Your task to perform on an android device: Open the map Image 0: 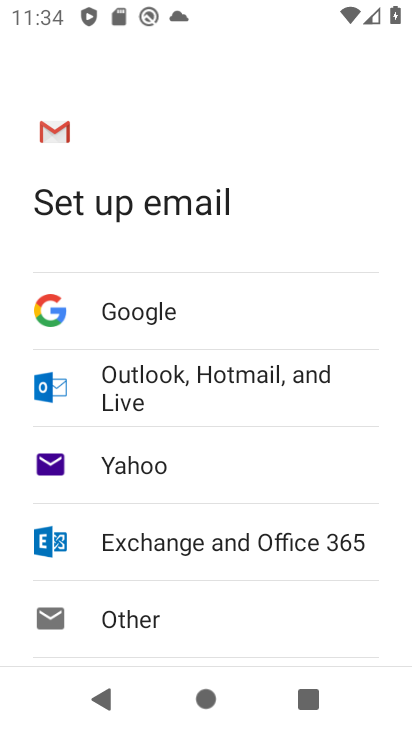
Step 0: press home button
Your task to perform on an android device: Open the map Image 1: 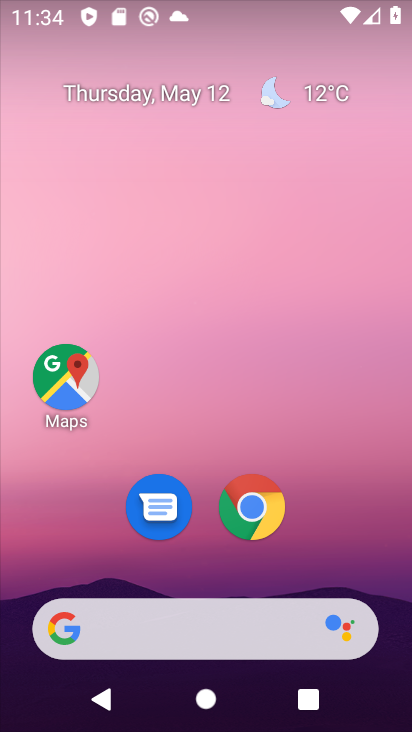
Step 1: drag from (197, 537) to (285, 15)
Your task to perform on an android device: Open the map Image 2: 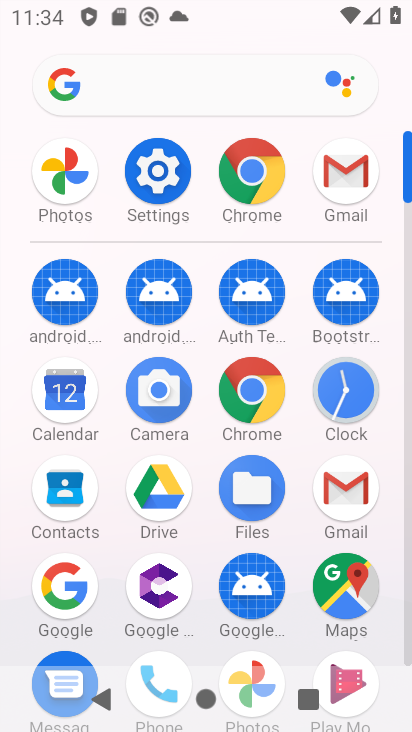
Step 2: click (352, 584)
Your task to perform on an android device: Open the map Image 3: 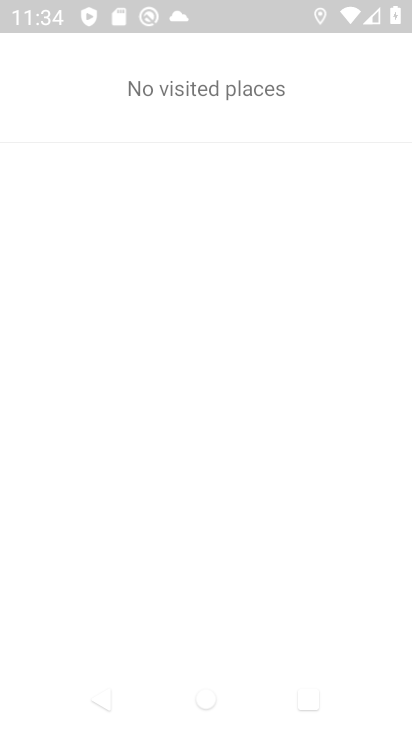
Step 3: press back button
Your task to perform on an android device: Open the map Image 4: 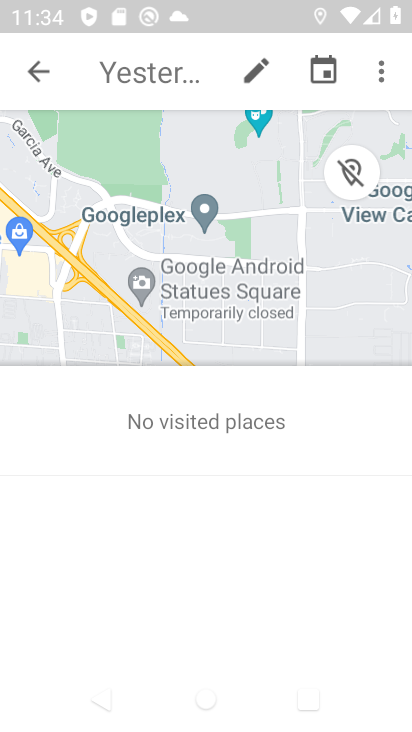
Step 4: click (43, 73)
Your task to perform on an android device: Open the map Image 5: 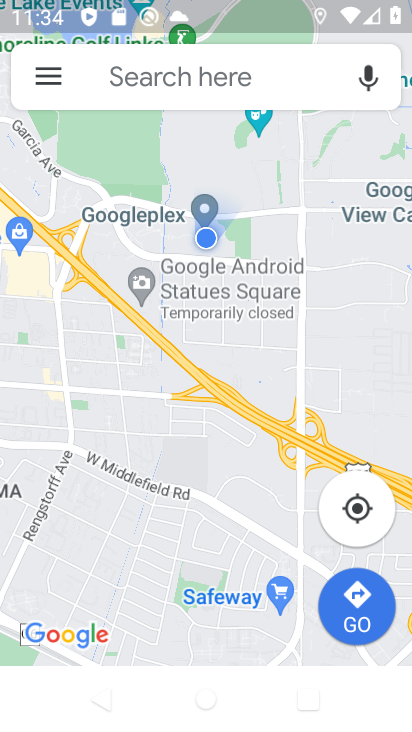
Step 5: task complete